Your task to perform on an android device: Open internet settings Image 0: 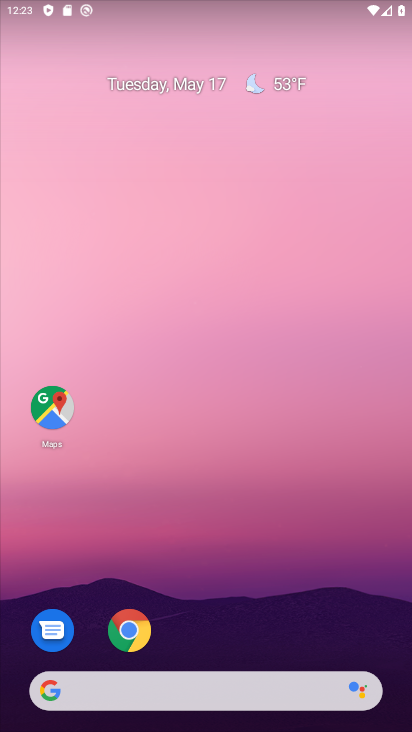
Step 0: drag from (181, 574) to (172, 301)
Your task to perform on an android device: Open internet settings Image 1: 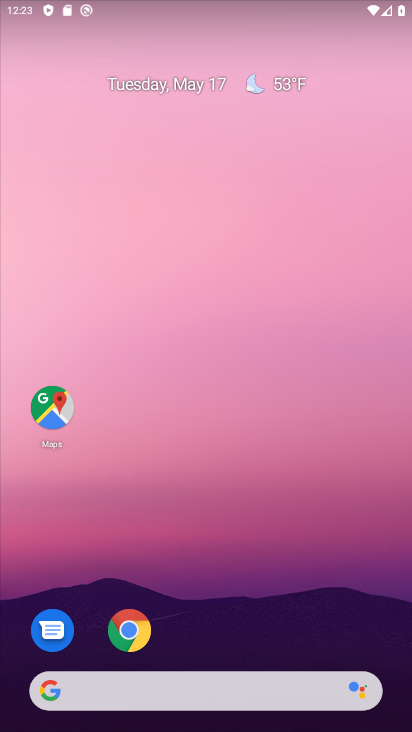
Step 1: drag from (236, 546) to (334, 10)
Your task to perform on an android device: Open internet settings Image 2: 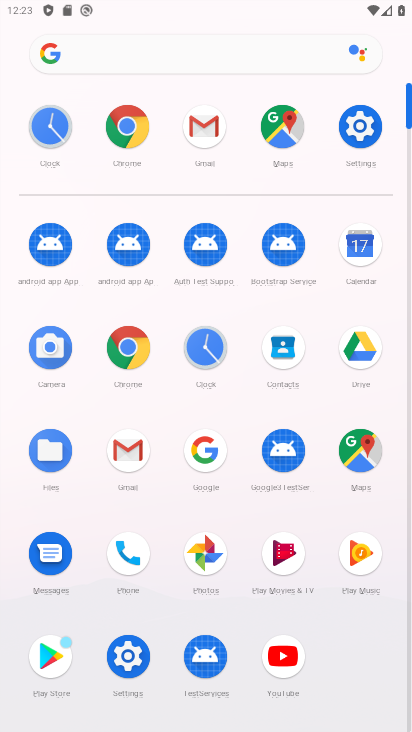
Step 2: click (375, 147)
Your task to perform on an android device: Open internet settings Image 3: 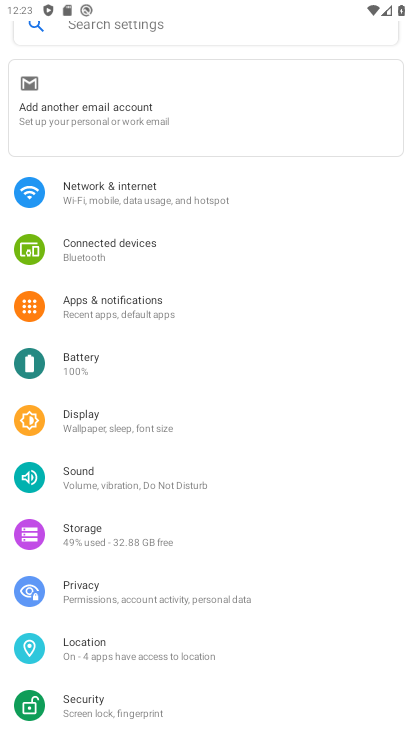
Step 3: click (225, 204)
Your task to perform on an android device: Open internet settings Image 4: 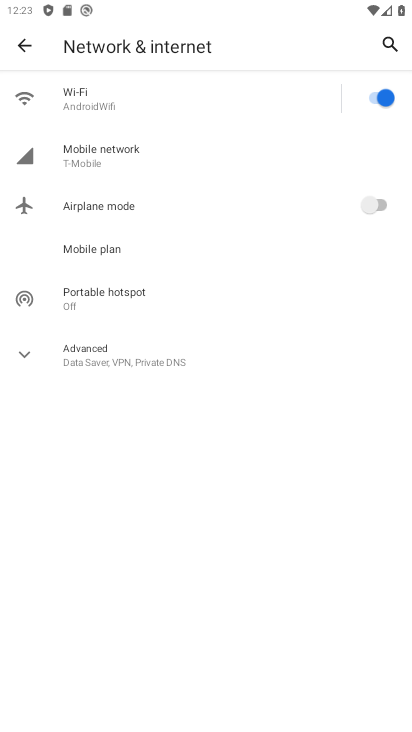
Step 4: click (89, 159)
Your task to perform on an android device: Open internet settings Image 5: 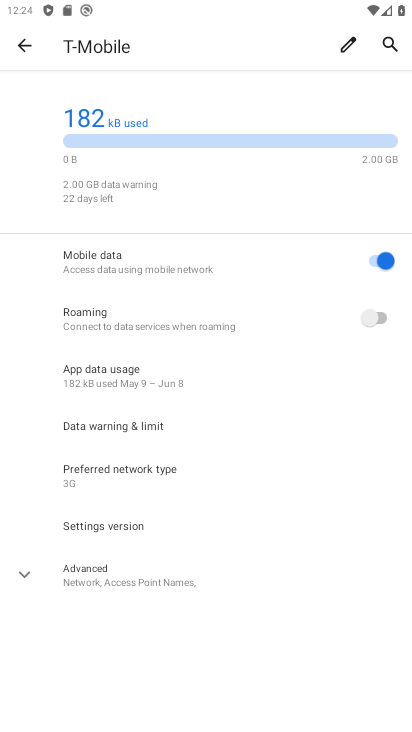
Step 5: task complete